Your task to perform on an android device: Open Youtube and go to the subscriptions tab Image 0: 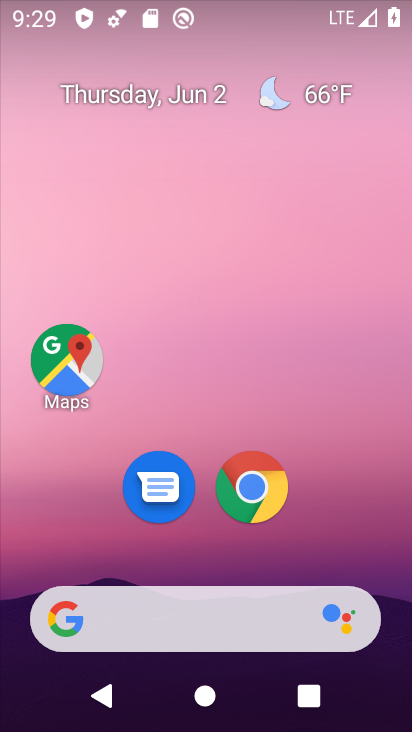
Step 0: drag from (226, 728) to (221, 124)
Your task to perform on an android device: Open Youtube and go to the subscriptions tab Image 1: 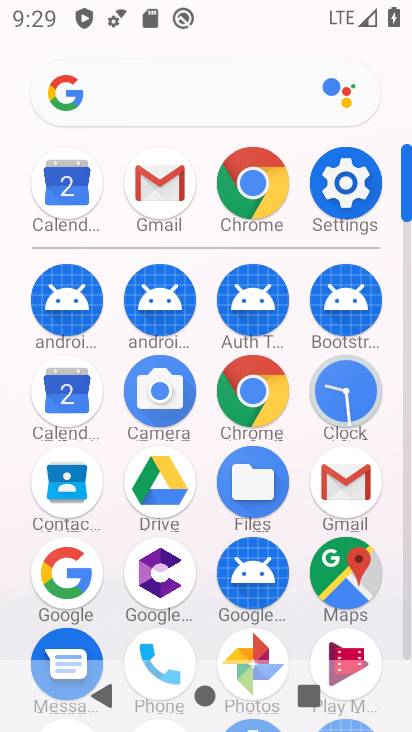
Step 1: drag from (297, 489) to (265, 213)
Your task to perform on an android device: Open Youtube and go to the subscriptions tab Image 2: 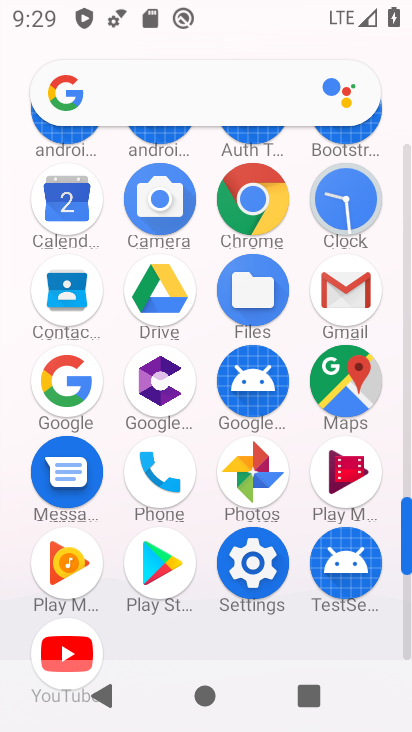
Step 2: click (73, 647)
Your task to perform on an android device: Open Youtube and go to the subscriptions tab Image 3: 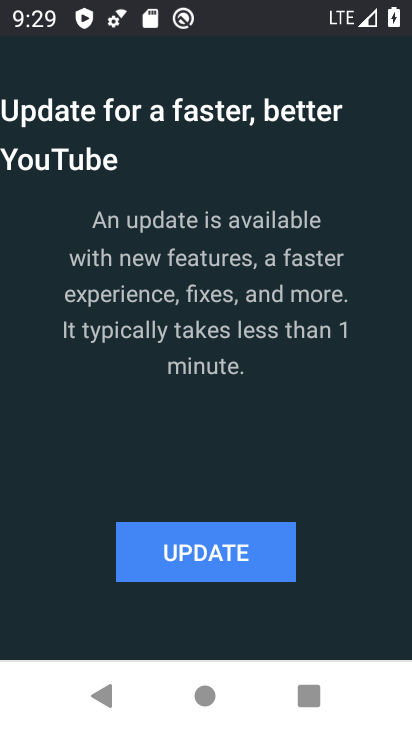
Step 3: click (216, 559)
Your task to perform on an android device: Open Youtube and go to the subscriptions tab Image 4: 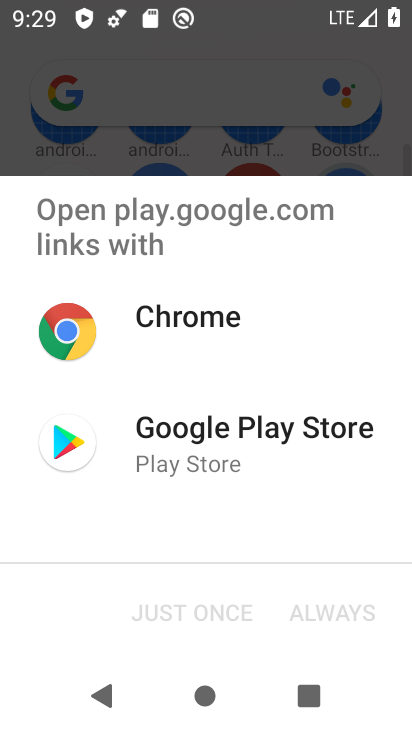
Step 4: click (173, 434)
Your task to perform on an android device: Open Youtube and go to the subscriptions tab Image 5: 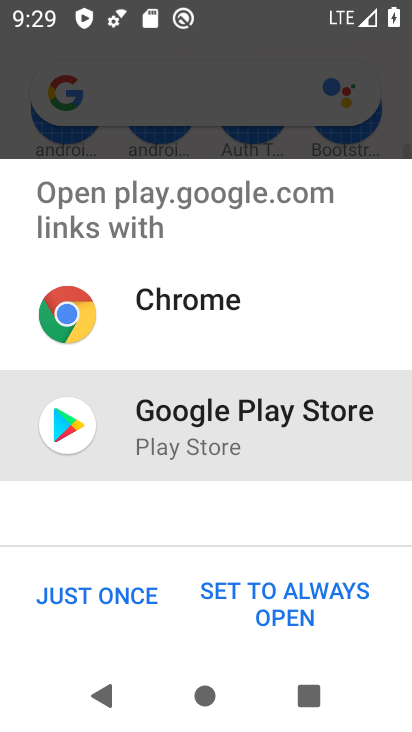
Step 5: click (113, 595)
Your task to perform on an android device: Open Youtube and go to the subscriptions tab Image 6: 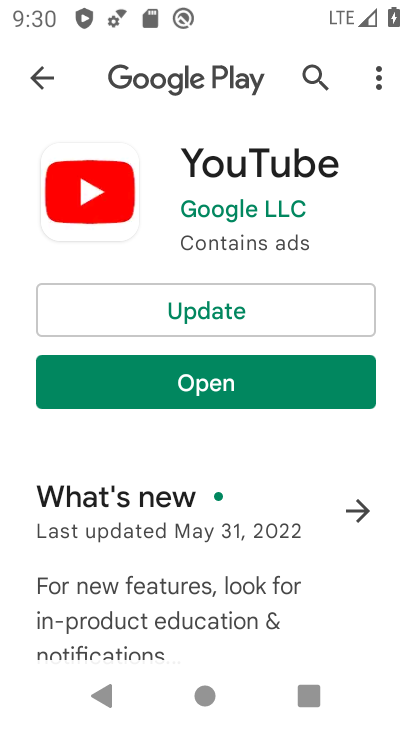
Step 6: click (201, 309)
Your task to perform on an android device: Open Youtube and go to the subscriptions tab Image 7: 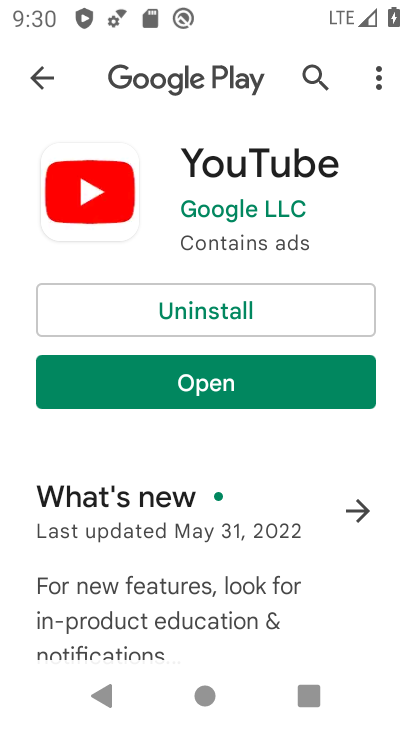
Step 7: click (220, 377)
Your task to perform on an android device: Open Youtube and go to the subscriptions tab Image 8: 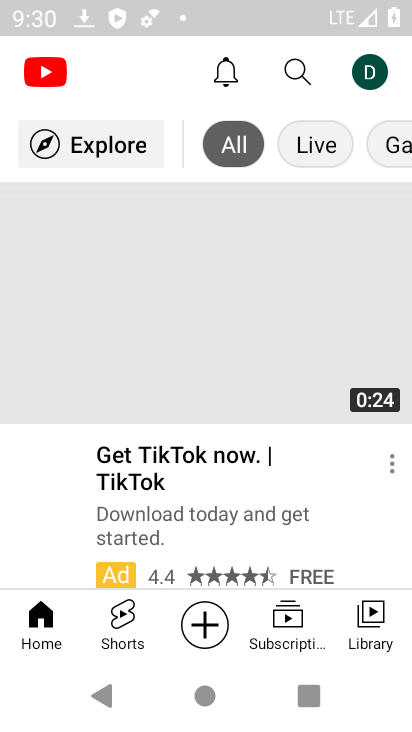
Step 8: click (293, 619)
Your task to perform on an android device: Open Youtube and go to the subscriptions tab Image 9: 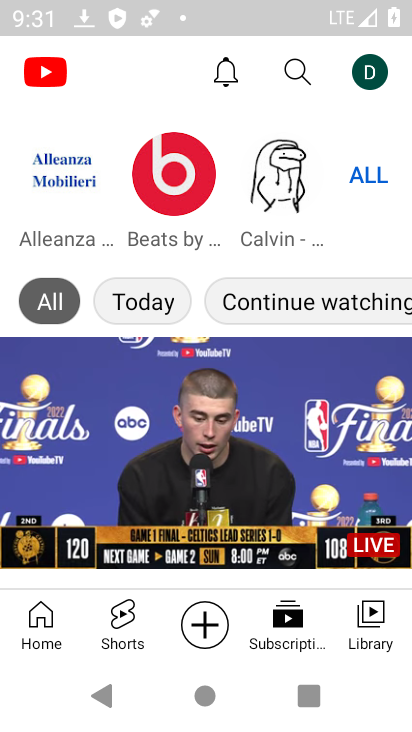
Step 9: task complete